Your task to perform on an android device: Open Youtube and go to "Your channel" Image 0: 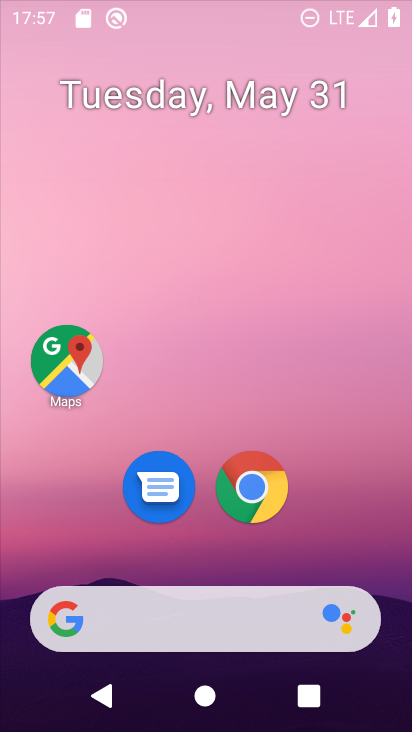
Step 0: drag from (344, 521) to (236, 22)
Your task to perform on an android device: Open Youtube and go to "Your channel" Image 1: 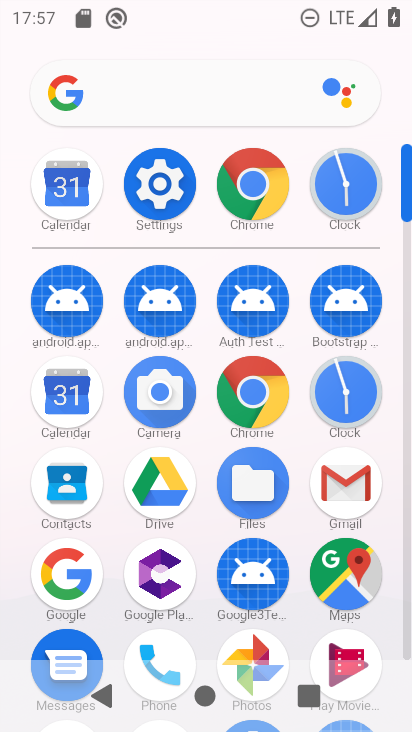
Step 1: drag from (216, 624) to (192, 197)
Your task to perform on an android device: Open Youtube and go to "Your channel" Image 2: 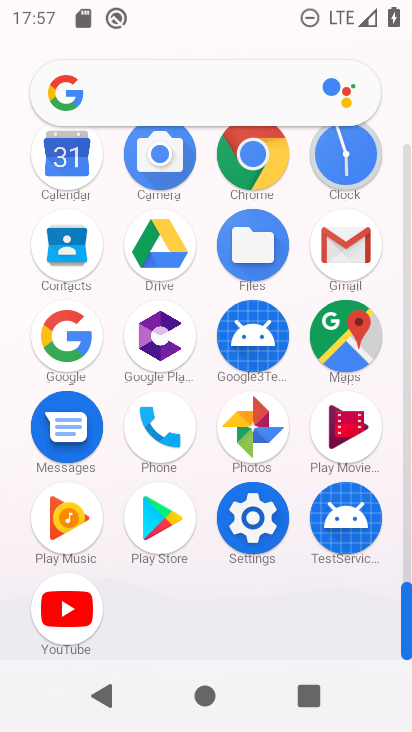
Step 2: click (56, 600)
Your task to perform on an android device: Open Youtube and go to "Your channel" Image 3: 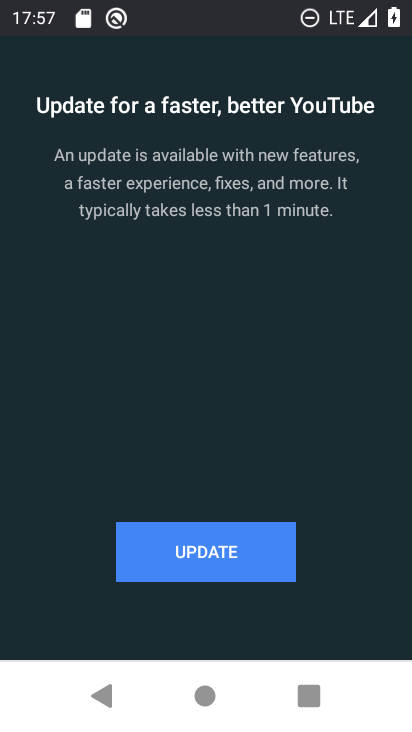
Step 3: click (222, 547)
Your task to perform on an android device: Open Youtube and go to "Your channel" Image 4: 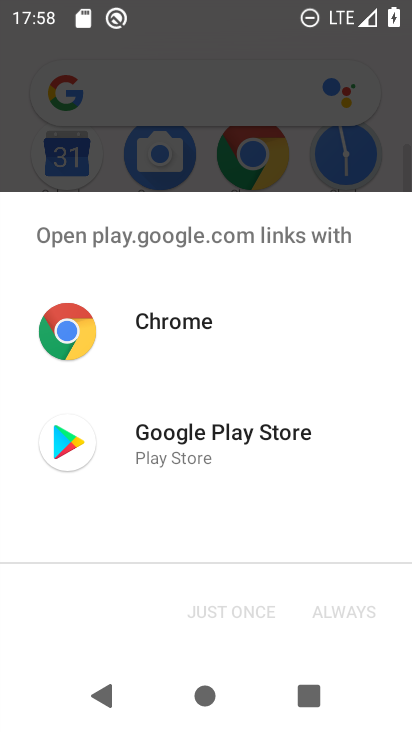
Step 4: click (164, 434)
Your task to perform on an android device: Open Youtube and go to "Your channel" Image 5: 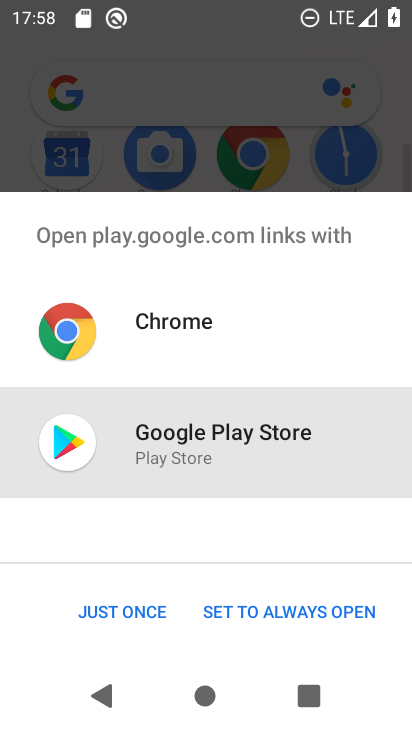
Step 5: click (119, 608)
Your task to perform on an android device: Open Youtube and go to "Your channel" Image 6: 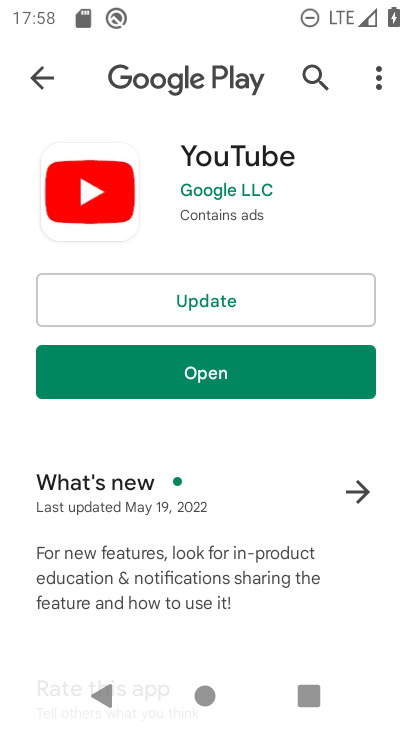
Step 6: click (210, 315)
Your task to perform on an android device: Open Youtube and go to "Your channel" Image 7: 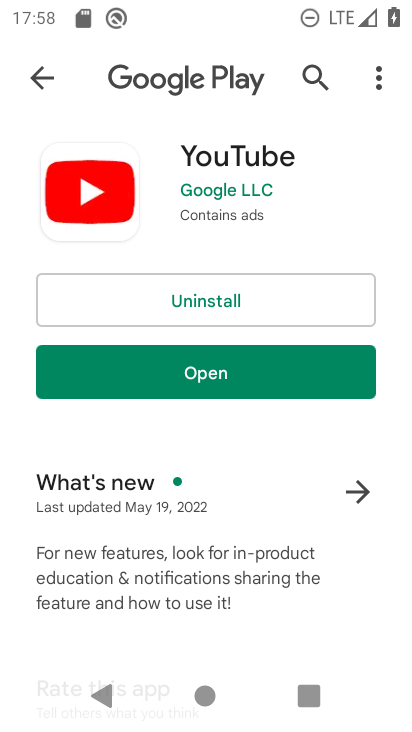
Step 7: click (230, 364)
Your task to perform on an android device: Open Youtube and go to "Your channel" Image 8: 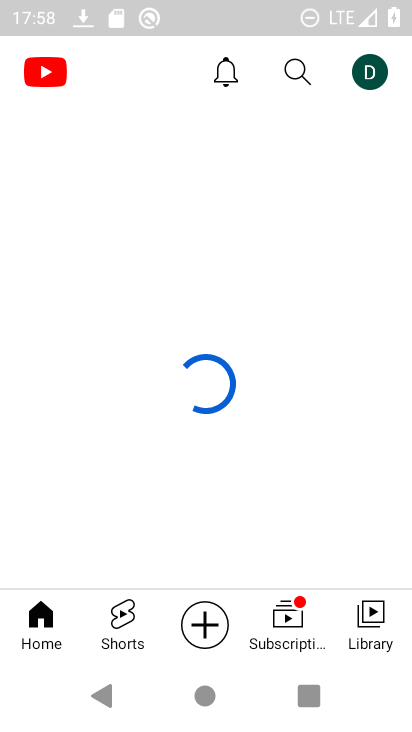
Step 8: click (365, 616)
Your task to perform on an android device: Open Youtube and go to "Your channel" Image 9: 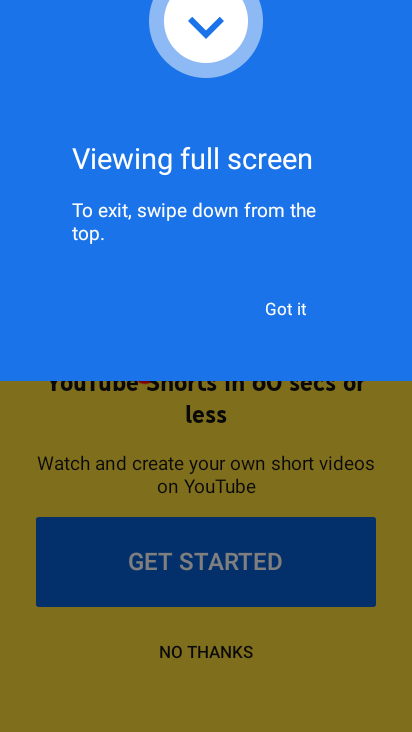
Step 9: click (214, 647)
Your task to perform on an android device: Open Youtube and go to "Your channel" Image 10: 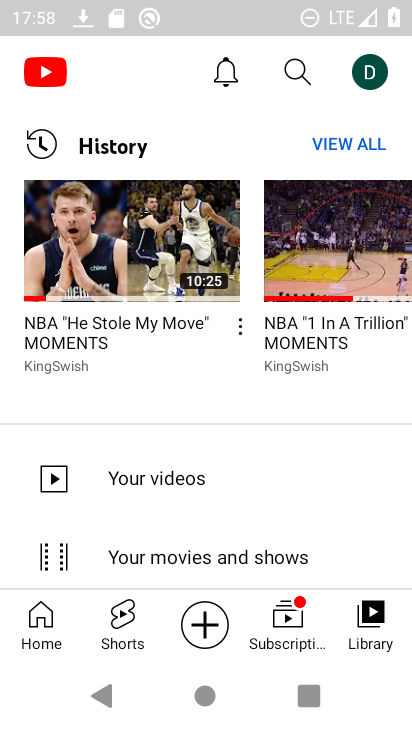
Step 10: click (371, 65)
Your task to perform on an android device: Open Youtube and go to "Your channel" Image 11: 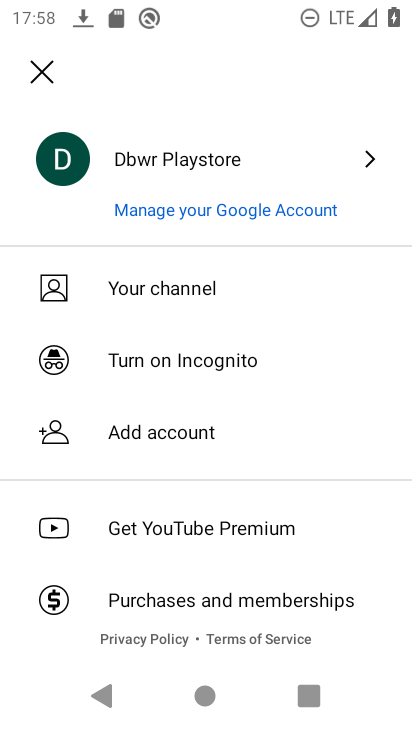
Step 11: click (183, 285)
Your task to perform on an android device: Open Youtube and go to "Your channel" Image 12: 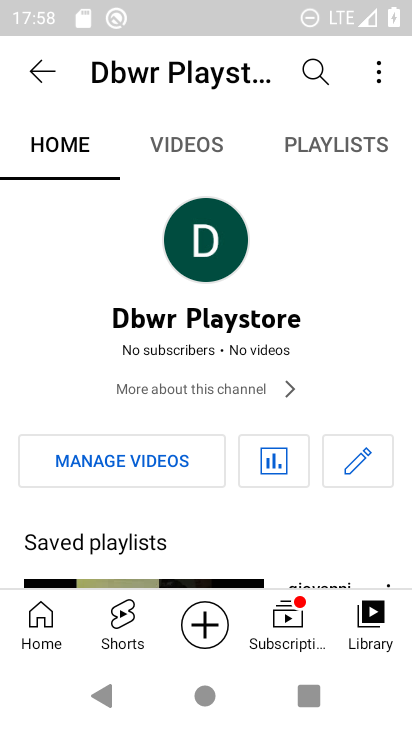
Step 12: task complete